Your task to perform on an android device: Open the phone app and click the voicemail tab. Image 0: 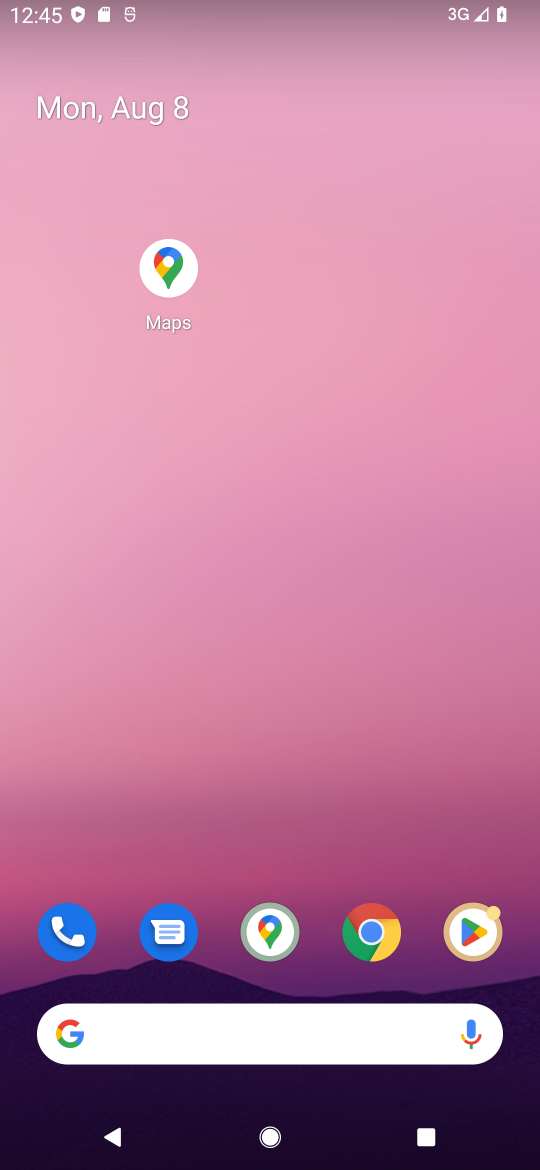
Step 0: click (51, 917)
Your task to perform on an android device: Open the phone app and click the voicemail tab. Image 1: 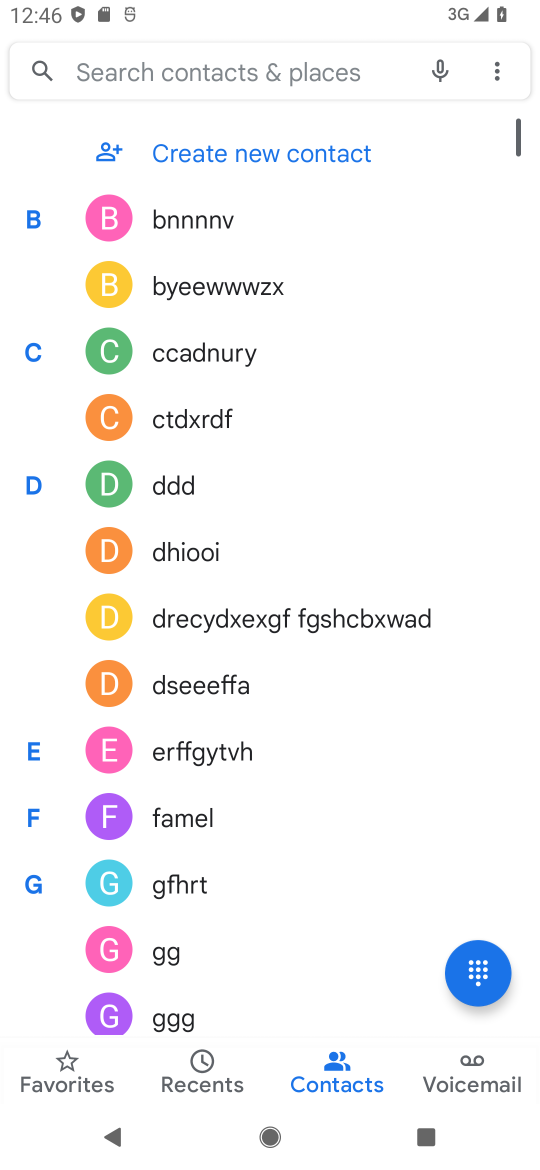
Step 1: click (481, 1095)
Your task to perform on an android device: Open the phone app and click the voicemail tab. Image 2: 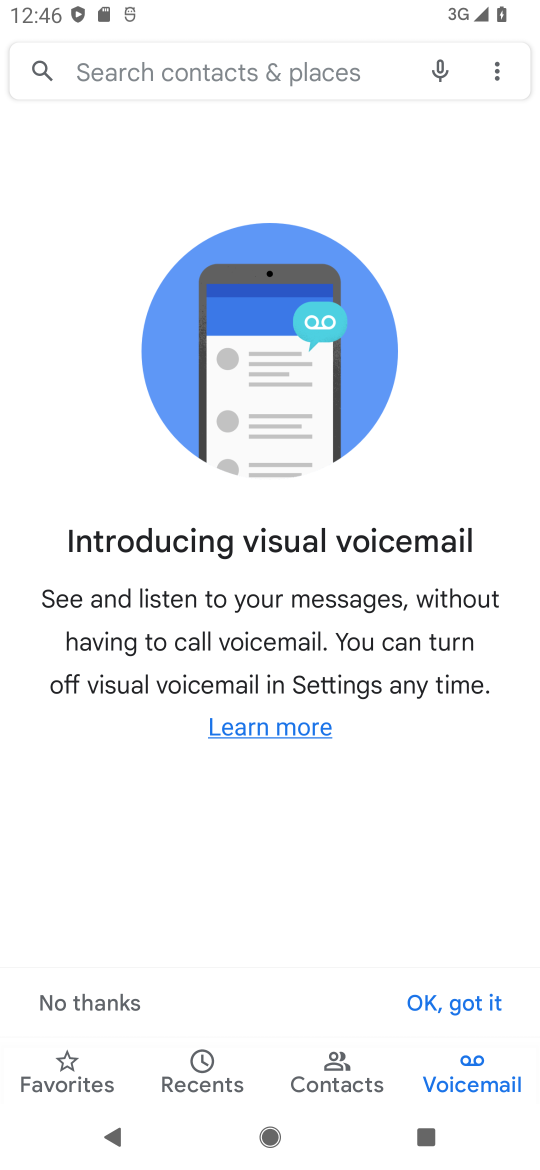
Step 2: click (475, 1084)
Your task to perform on an android device: Open the phone app and click the voicemail tab. Image 3: 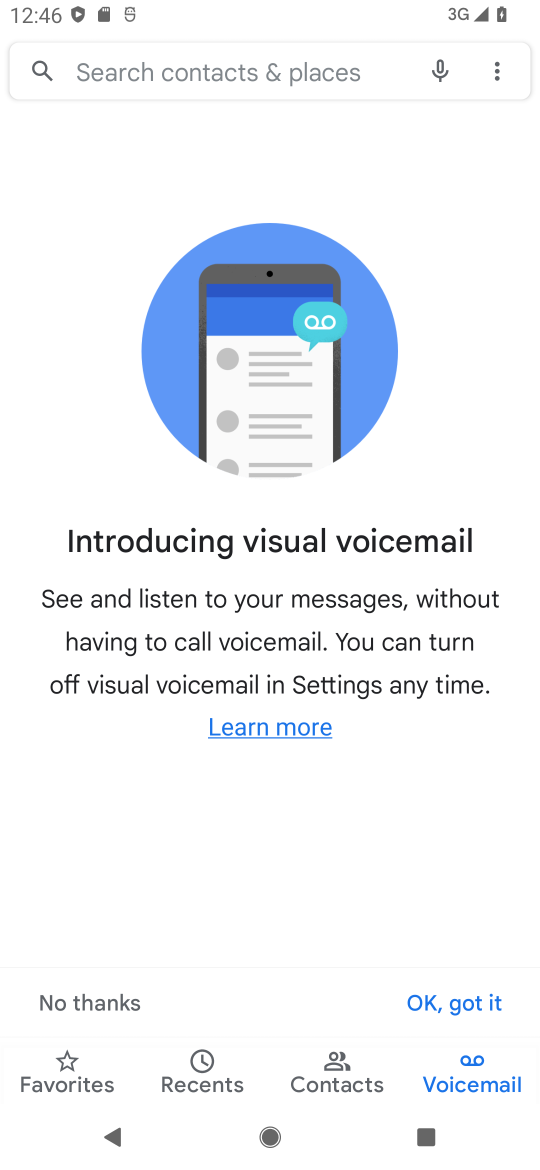
Step 3: task complete